Your task to perform on an android device: find photos in the google photos app Image 0: 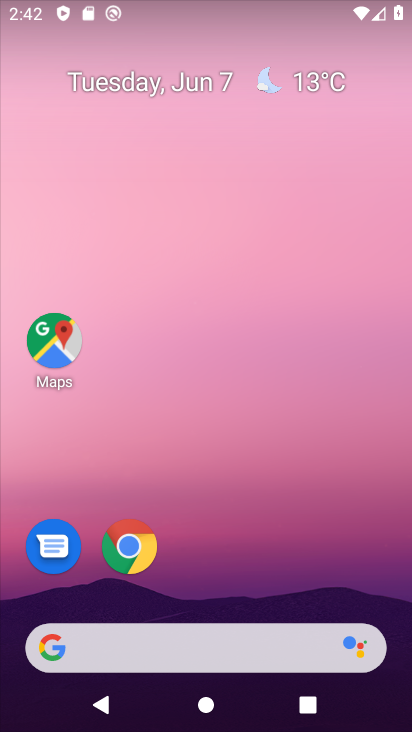
Step 0: drag from (184, 554) to (221, 140)
Your task to perform on an android device: find photos in the google photos app Image 1: 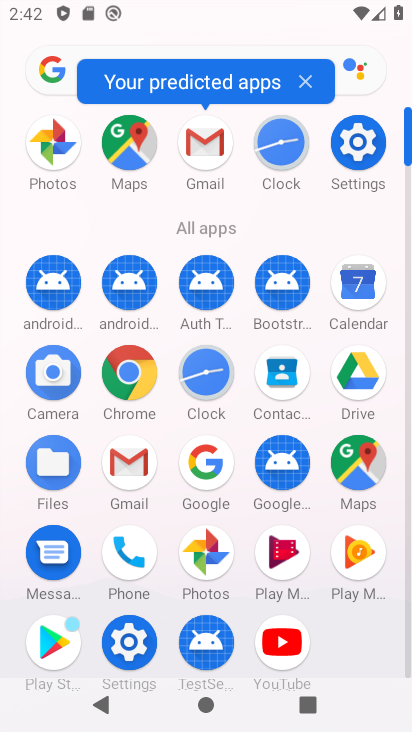
Step 1: click (216, 567)
Your task to perform on an android device: find photos in the google photos app Image 2: 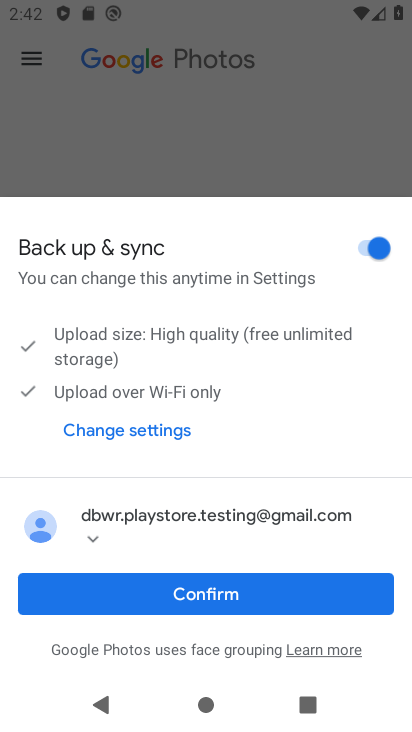
Step 2: click (146, 583)
Your task to perform on an android device: find photos in the google photos app Image 3: 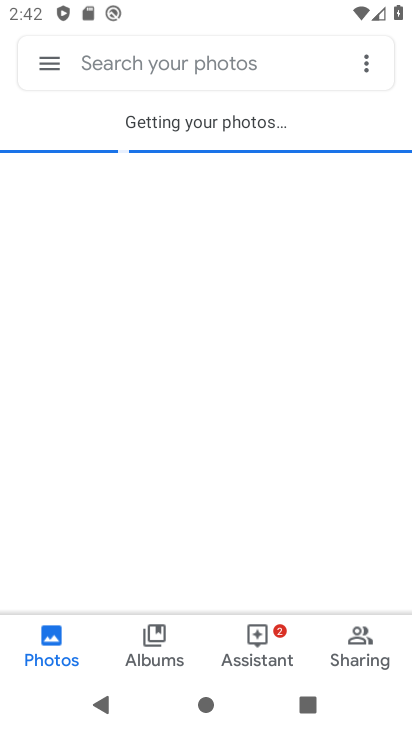
Step 3: click (155, 628)
Your task to perform on an android device: find photos in the google photos app Image 4: 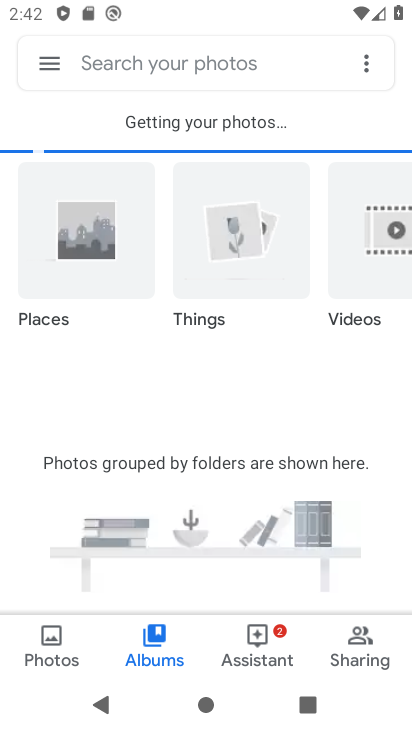
Step 4: task complete